Your task to perform on an android device: What's the weather? Image 0: 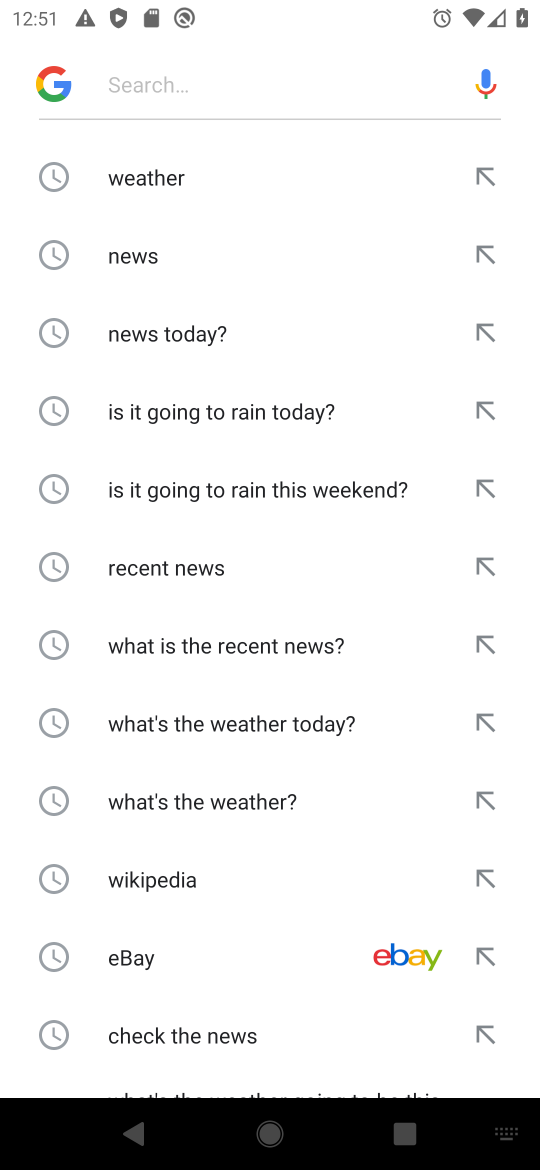
Step 0: click (218, 205)
Your task to perform on an android device: What's the weather? Image 1: 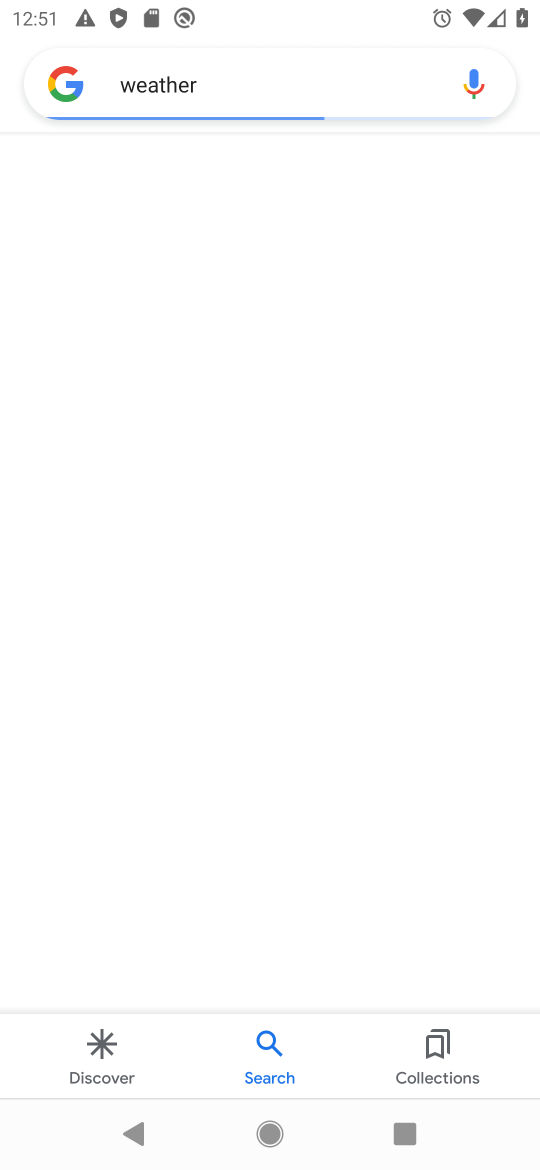
Step 1: task complete